Your task to perform on an android device: empty trash in the gmail app Image 0: 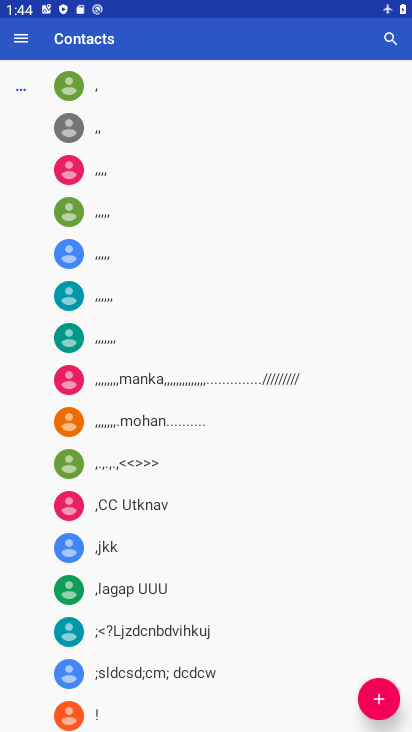
Step 0: press home button
Your task to perform on an android device: empty trash in the gmail app Image 1: 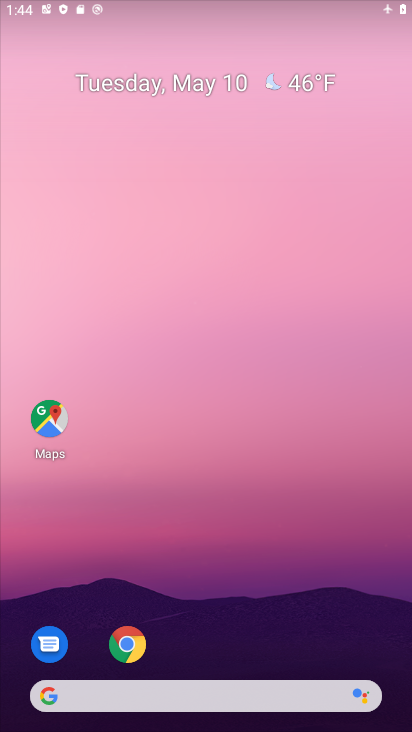
Step 1: drag from (268, 609) to (302, 191)
Your task to perform on an android device: empty trash in the gmail app Image 2: 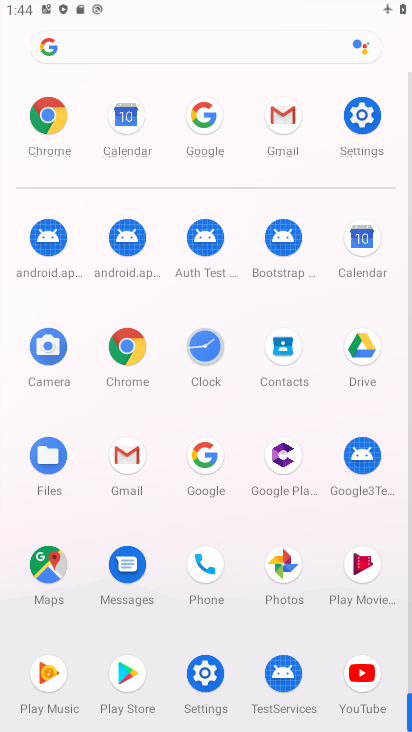
Step 2: click (121, 471)
Your task to perform on an android device: empty trash in the gmail app Image 3: 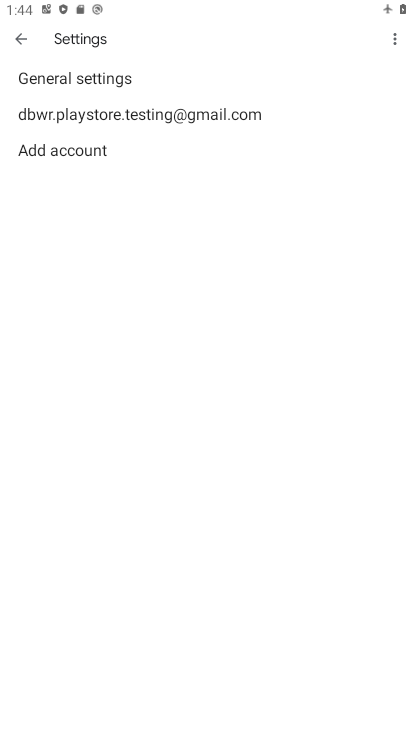
Step 3: click (23, 36)
Your task to perform on an android device: empty trash in the gmail app Image 4: 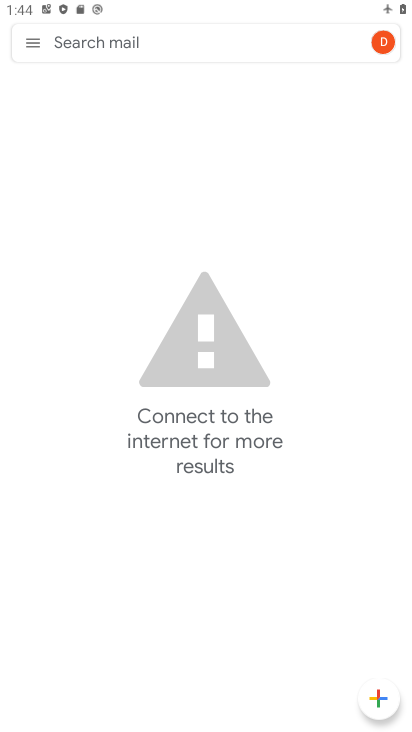
Step 4: click (24, 52)
Your task to perform on an android device: empty trash in the gmail app Image 5: 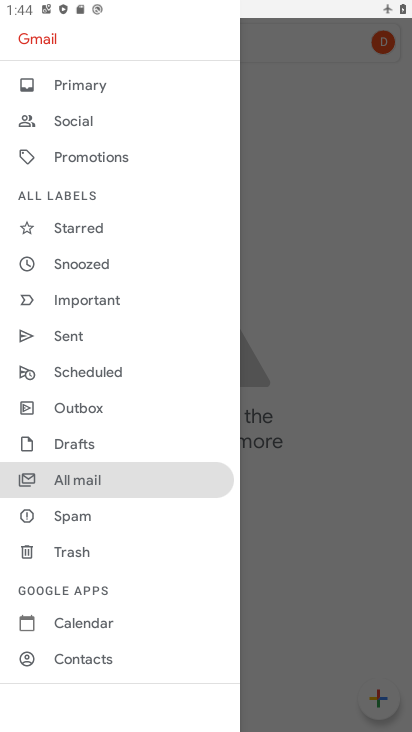
Step 5: click (78, 551)
Your task to perform on an android device: empty trash in the gmail app Image 6: 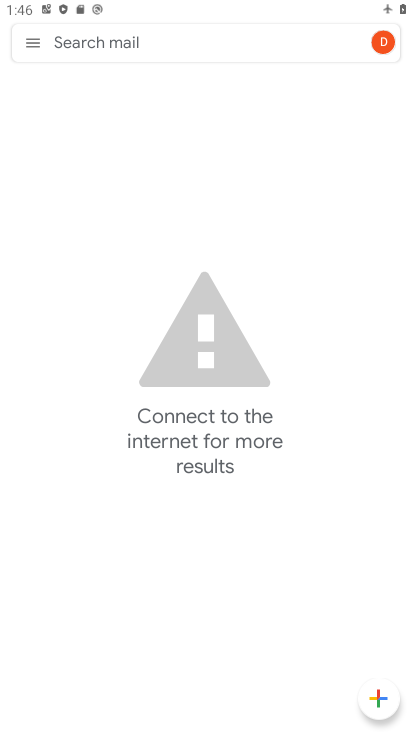
Step 6: click (21, 47)
Your task to perform on an android device: empty trash in the gmail app Image 7: 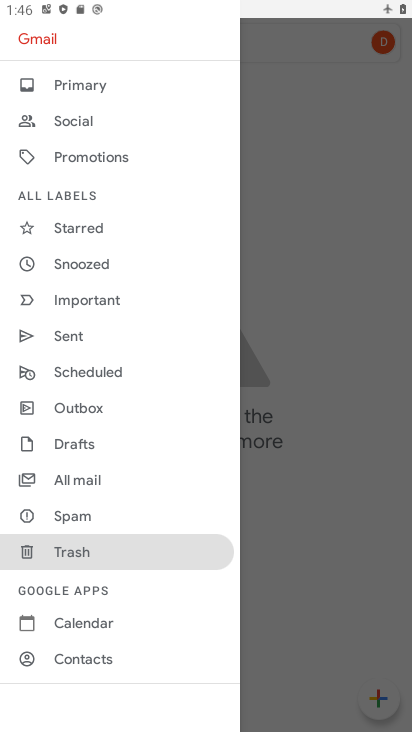
Step 7: click (93, 553)
Your task to perform on an android device: empty trash in the gmail app Image 8: 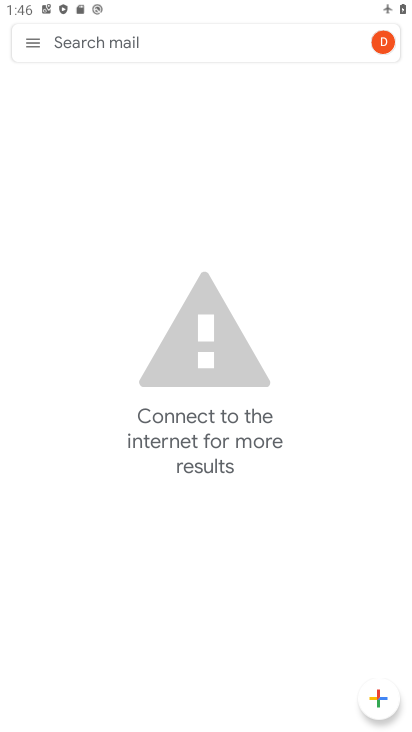
Step 8: task complete